Your task to perform on an android device: Find coffee shops on Maps Image 0: 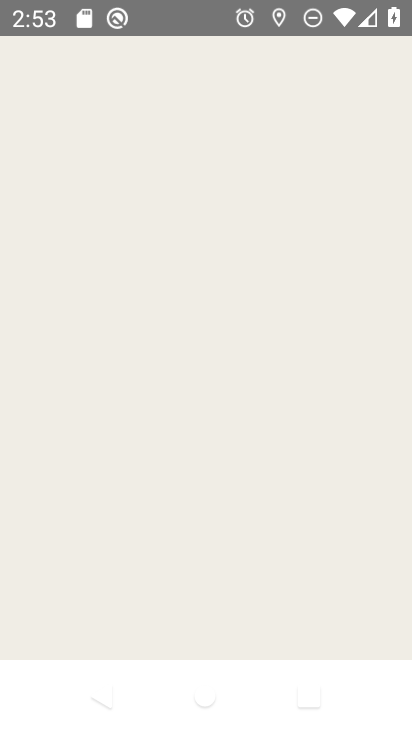
Step 0: click (255, 481)
Your task to perform on an android device: Find coffee shops on Maps Image 1: 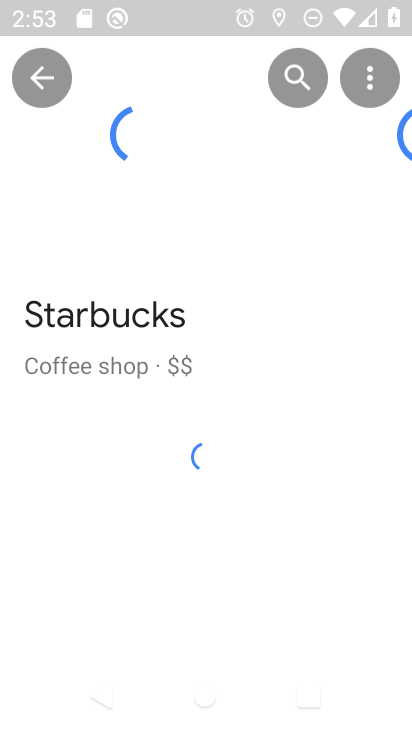
Step 1: task complete